Your task to perform on an android device: all mails in gmail Image 0: 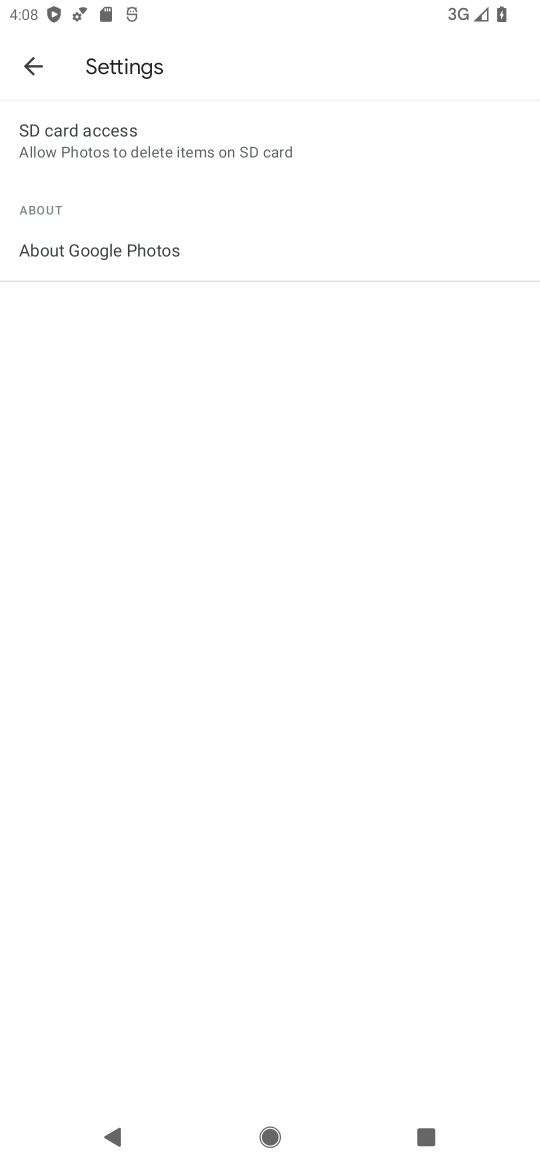
Step 0: press home button
Your task to perform on an android device: all mails in gmail Image 1: 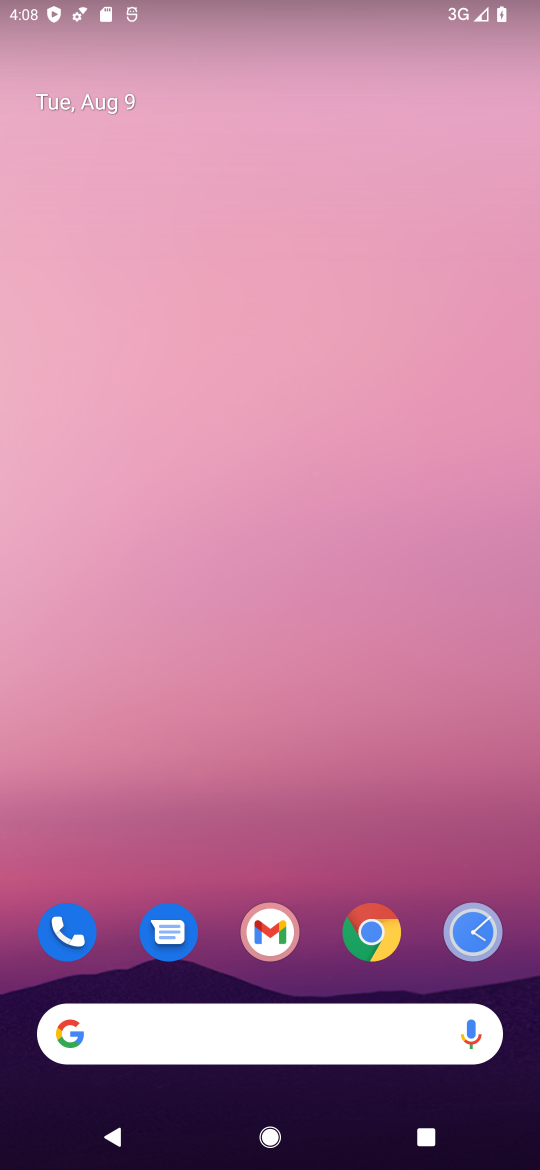
Step 1: drag from (328, 1042) to (321, 351)
Your task to perform on an android device: all mails in gmail Image 2: 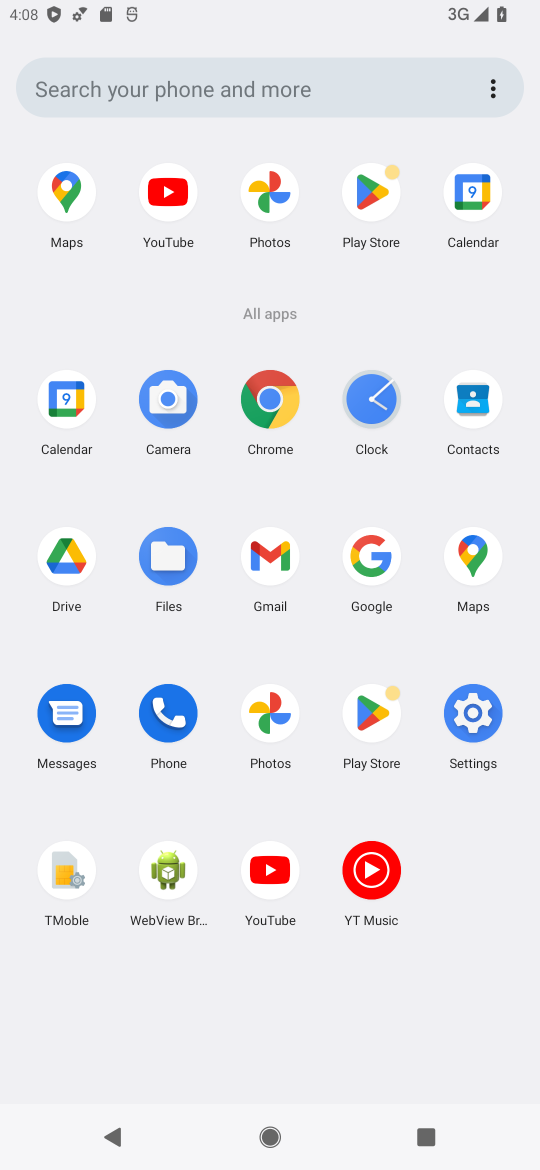
Step 2: click (272, 559)
Your task to perform on an android device: all mails in gmail Image 3: 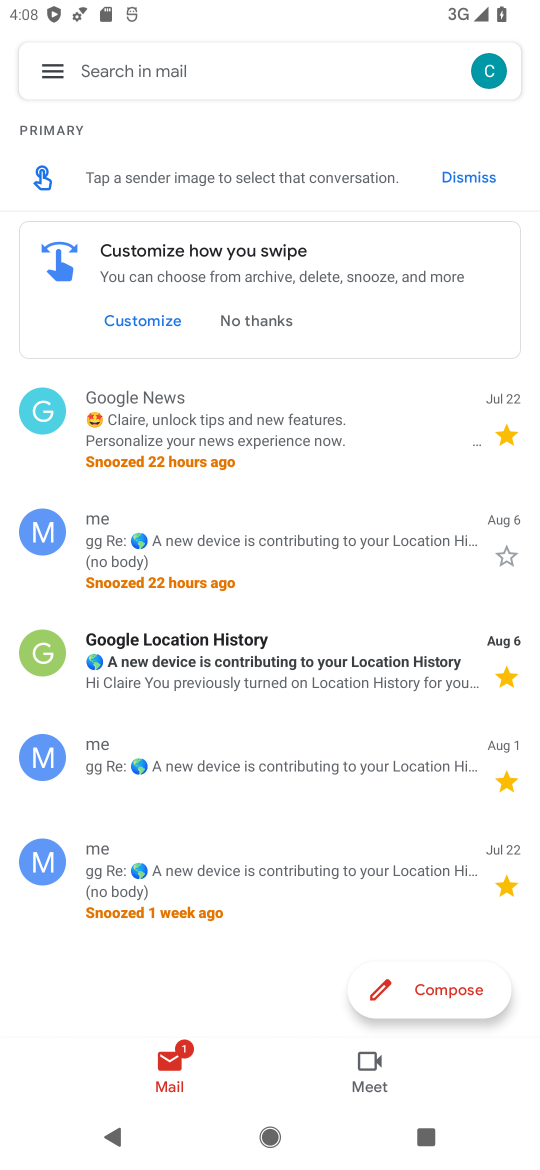
Step 3: click (46, 68)
Your task to perform on an android device: all mails in gmail Image 4: 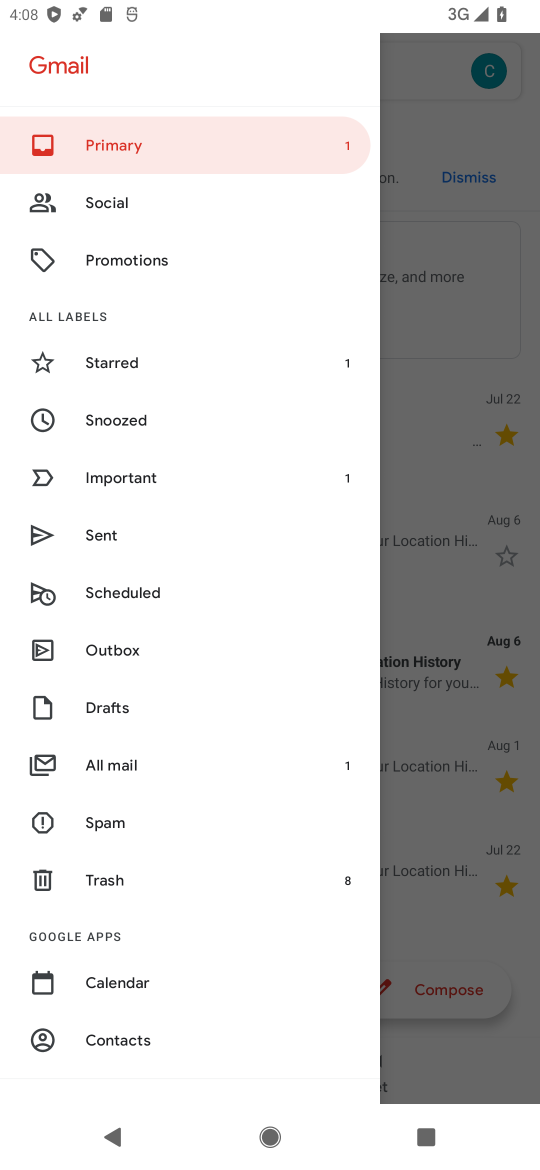
Step 4: click (144, 746)
Your task to perform on an android device: all mails in gmail Image 5: 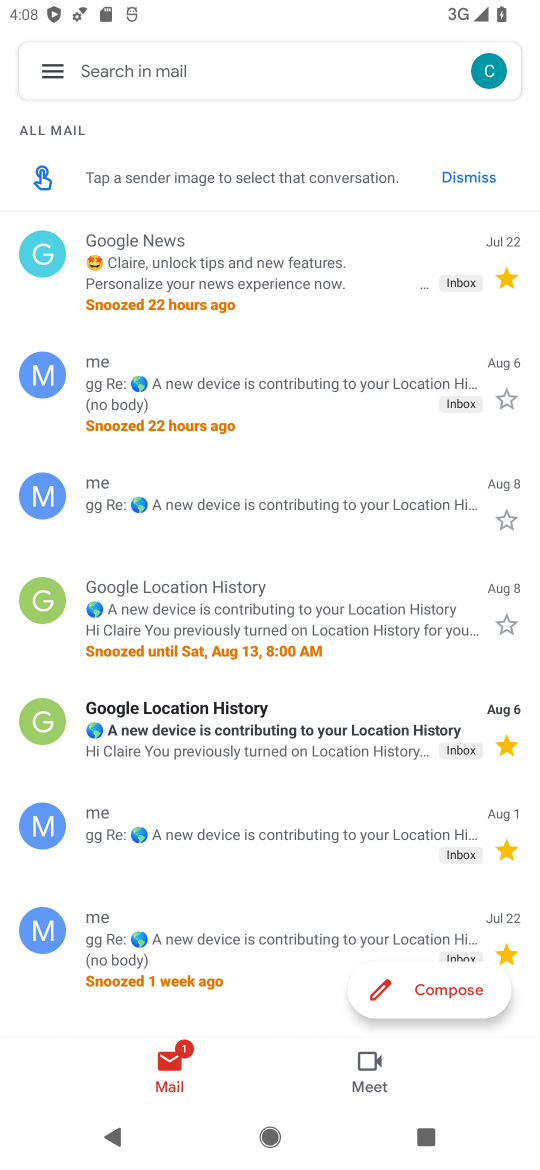
Step 5: task complete